Your task to perform on an android device: see sites visited before in the chrome app Image 0: 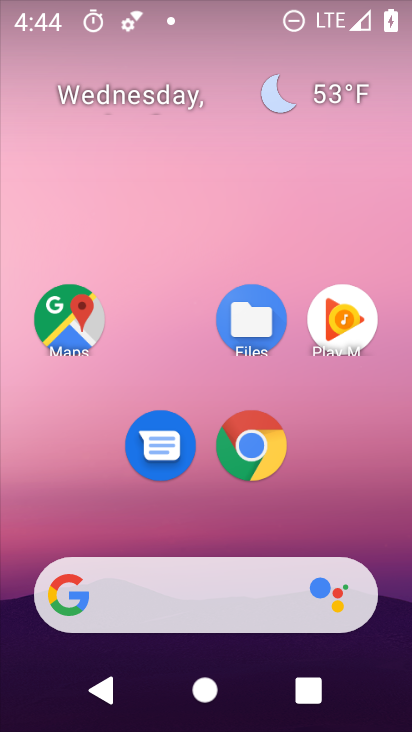
Step 0: click (261, 452)
Your task to perform on an android device: see sites visited before in the chrome app Image 1: 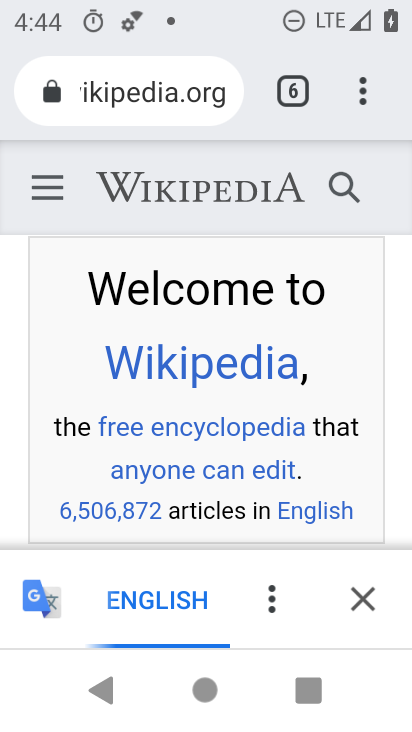
Step 1: click (364, 99)
Your task to perform on an android device: see sites visited before in the chrome app Image 2: 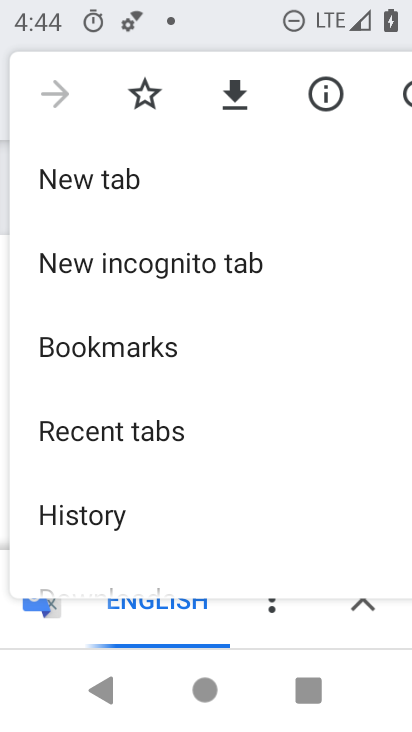
Step 2: click (100, 505)
Your task to perform on an android device: see sites visited before in the chrome app Image 3: 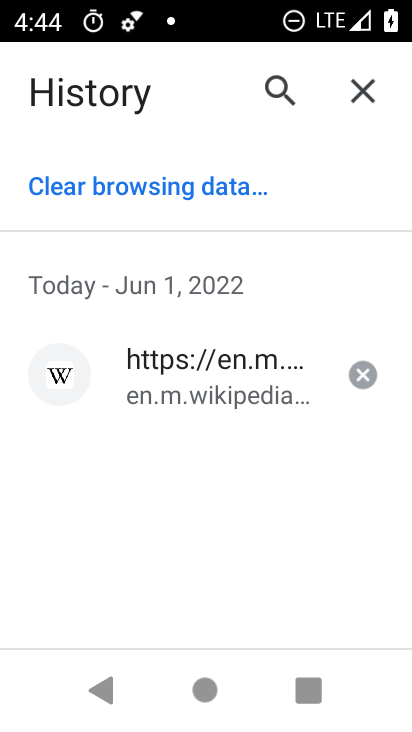
Step 3: task complete